Your task to perform on an android device: What's the weather like in Singapore? Image 0: 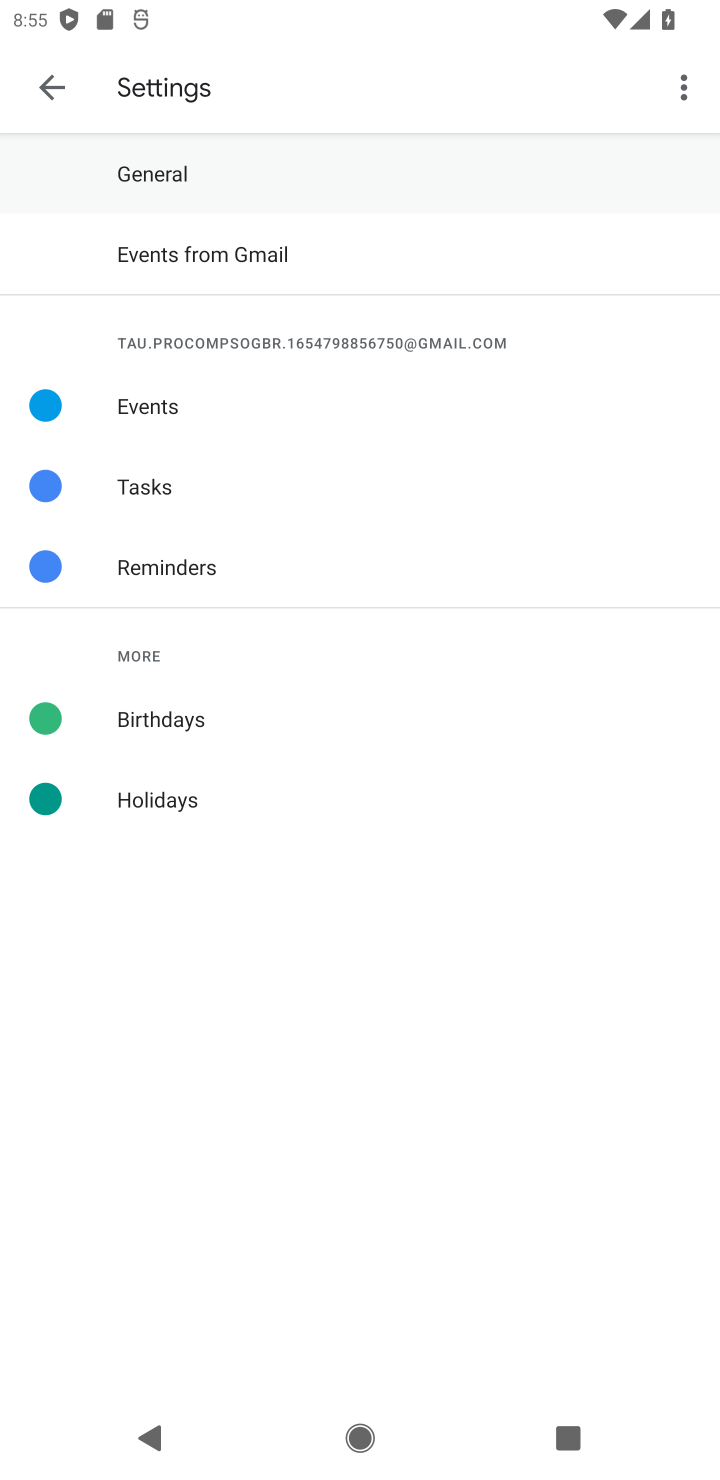
Step 0: press home button
Your task to perform on an android device: What's the weather like in Singapore? Image 1: 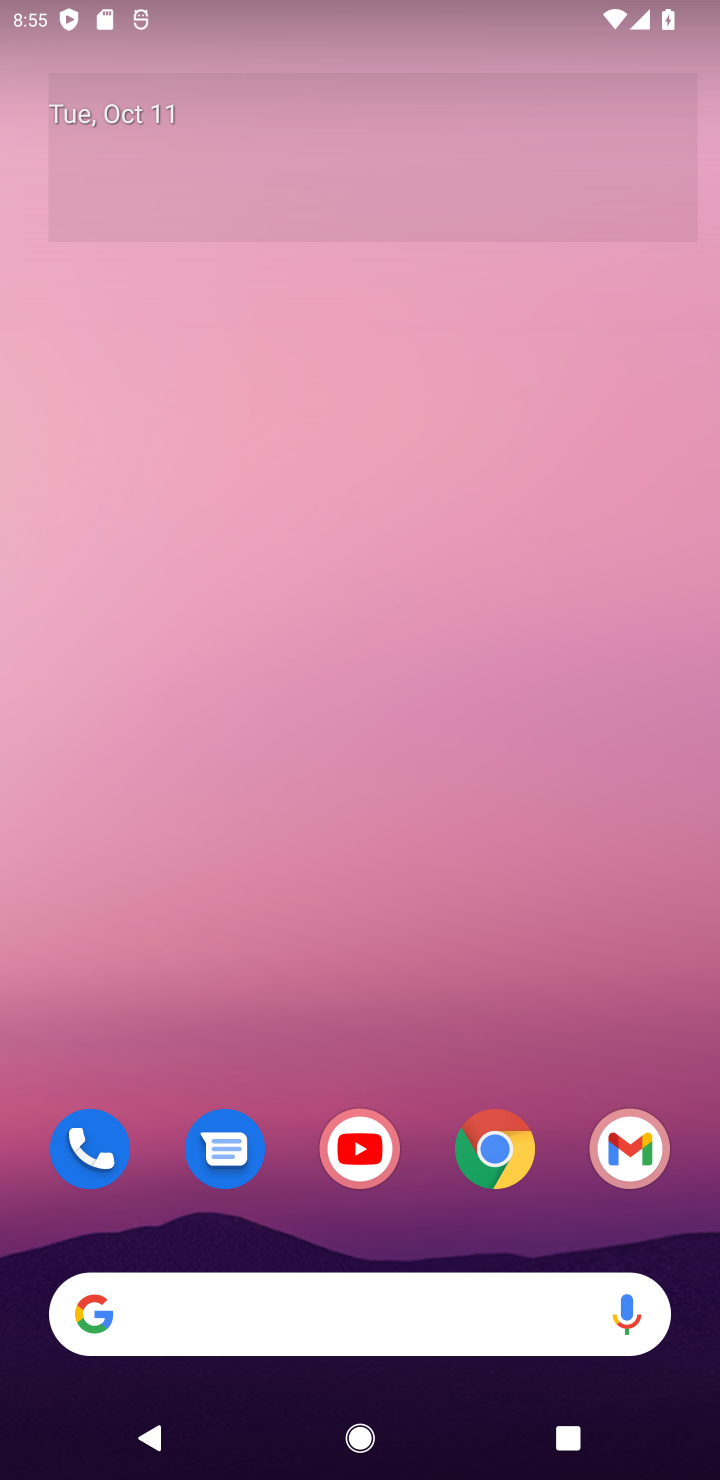
Step 1: drag from (388, 1113) to (514, 125)
Your task to perform on an android device: What's the weather like in Singapore? Image 2: 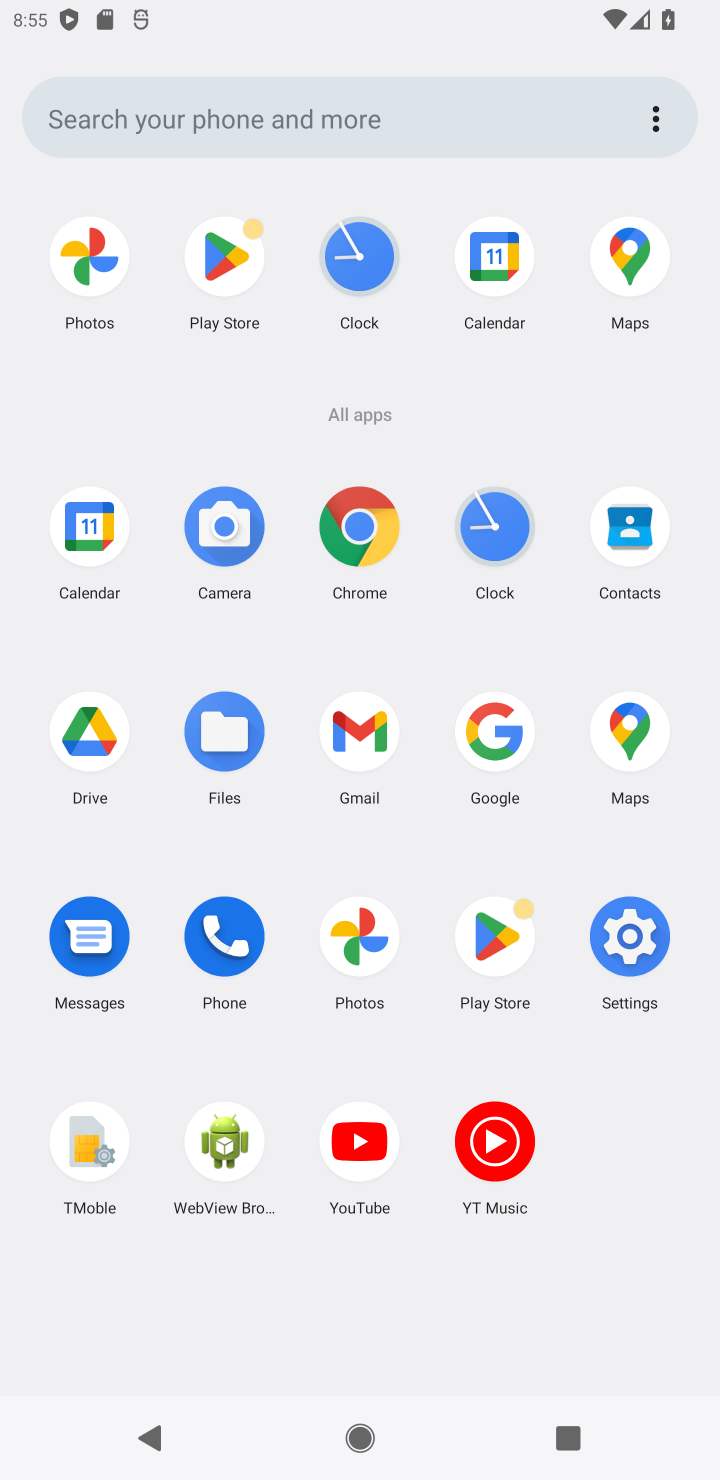
Step 2: click (380, 525)
Your task to perform on an android device: What's the weather like in Singapore? Image 3: 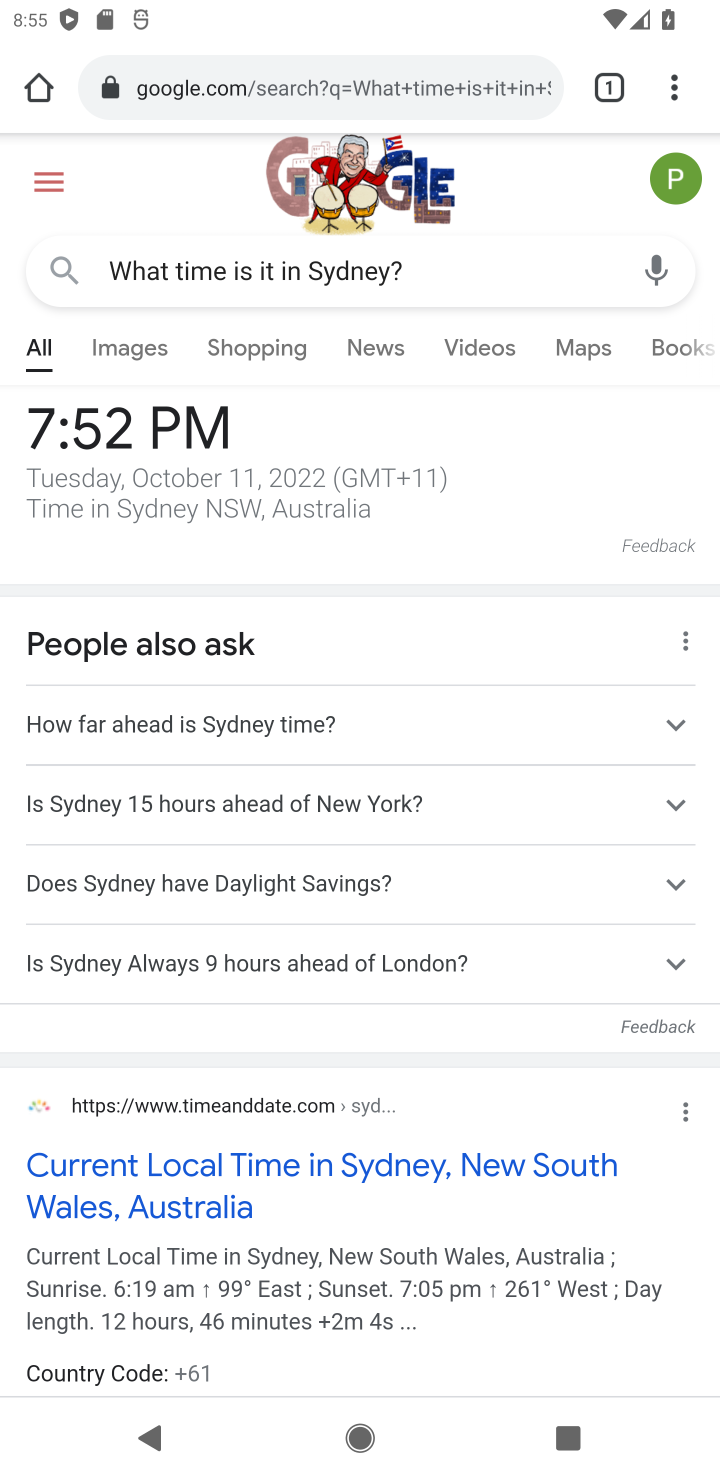
Step 3: click (421, 92)
Your task to perform on an android device: What's the weather like in Singapore? Image 4: 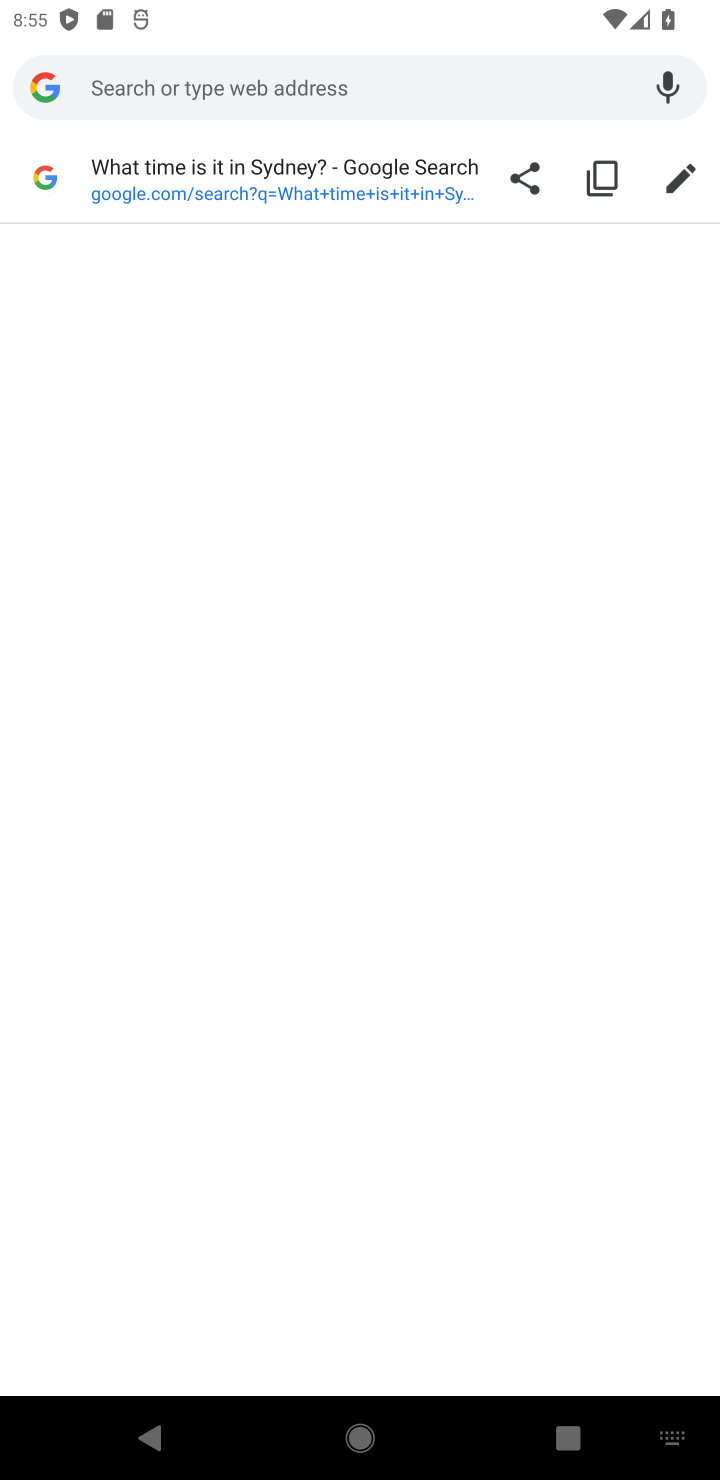
Step 4: type "What's the weather like in Singapore?"
Your task to perform on an android device: What's the weather like in Singapore? Image 5: 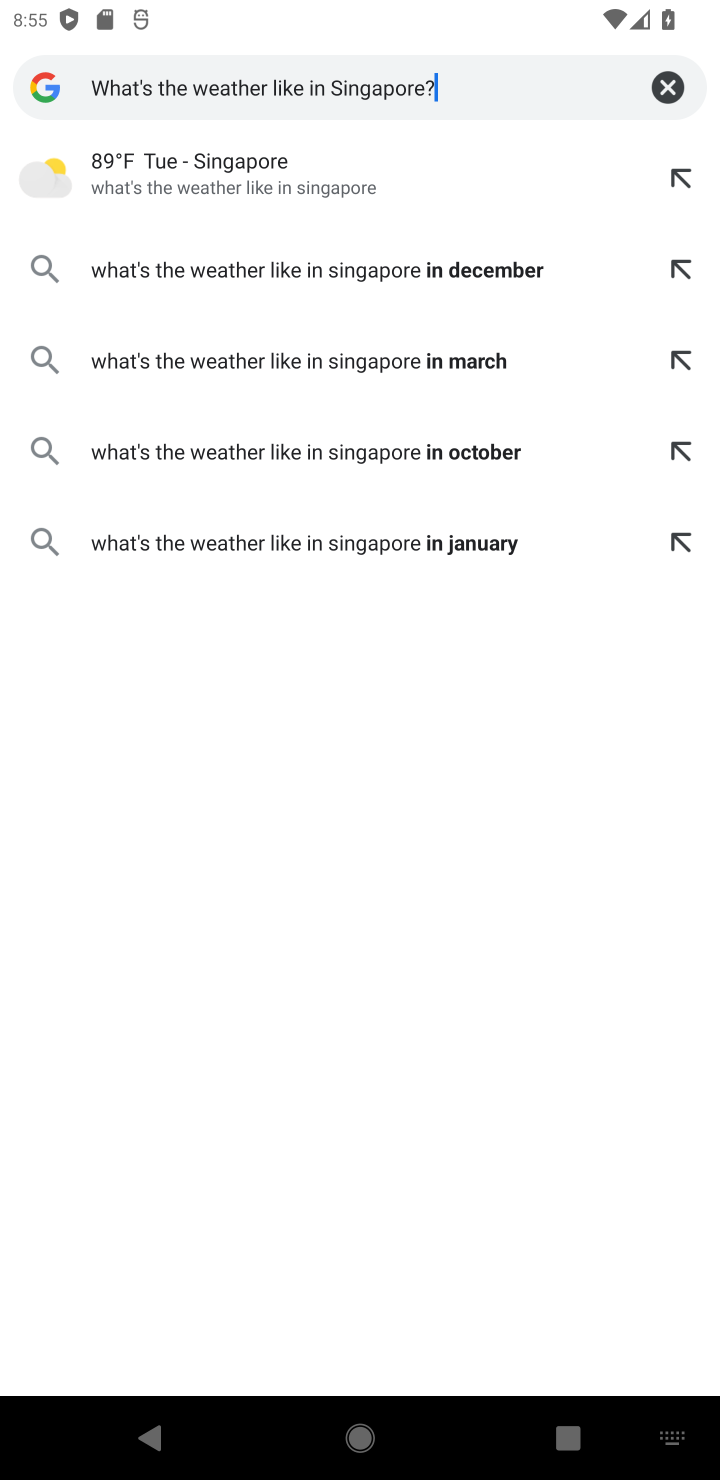
Step 5: press enter
Your task to perform on an android device: What's the weather like in Singapore? Image 6: 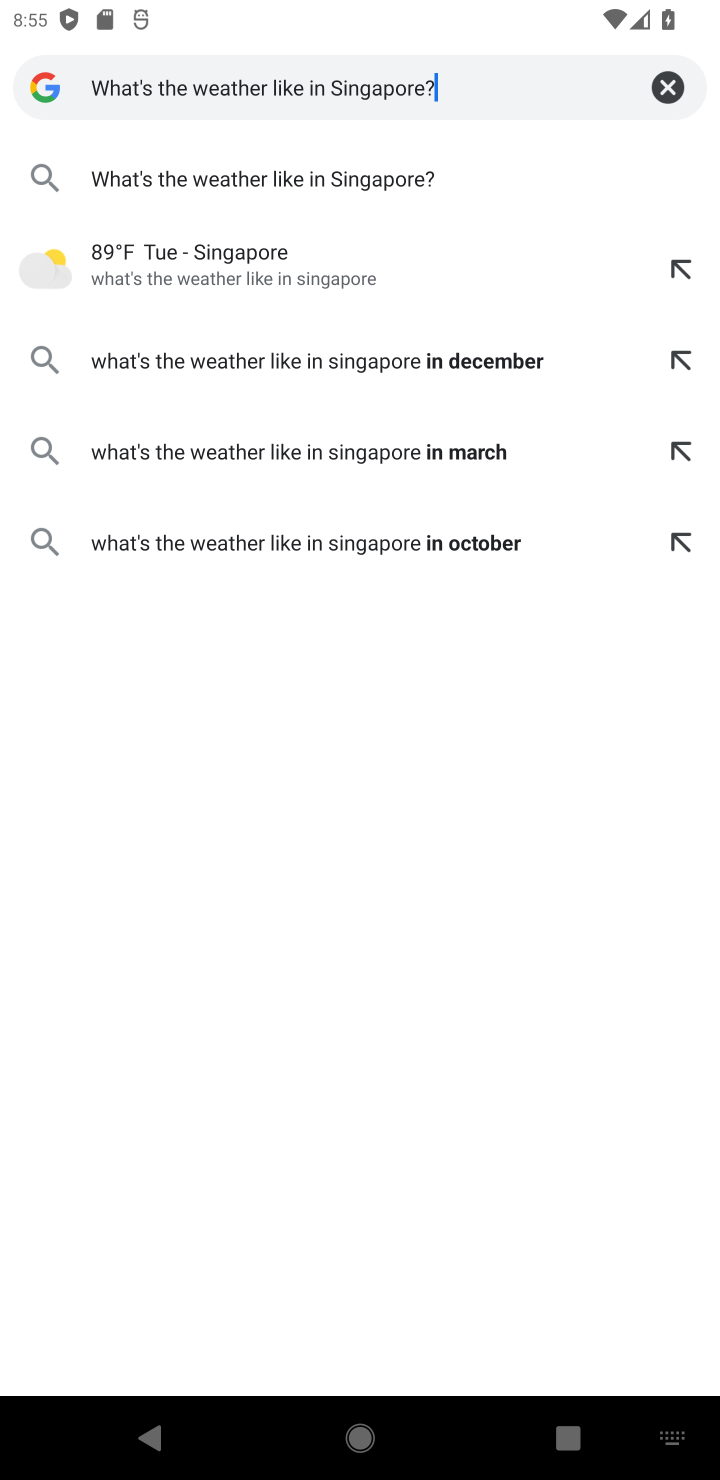
Step 6: click (494, 79)
Your task to perform on an android device: What's the weather like in Singapore? Image 7: 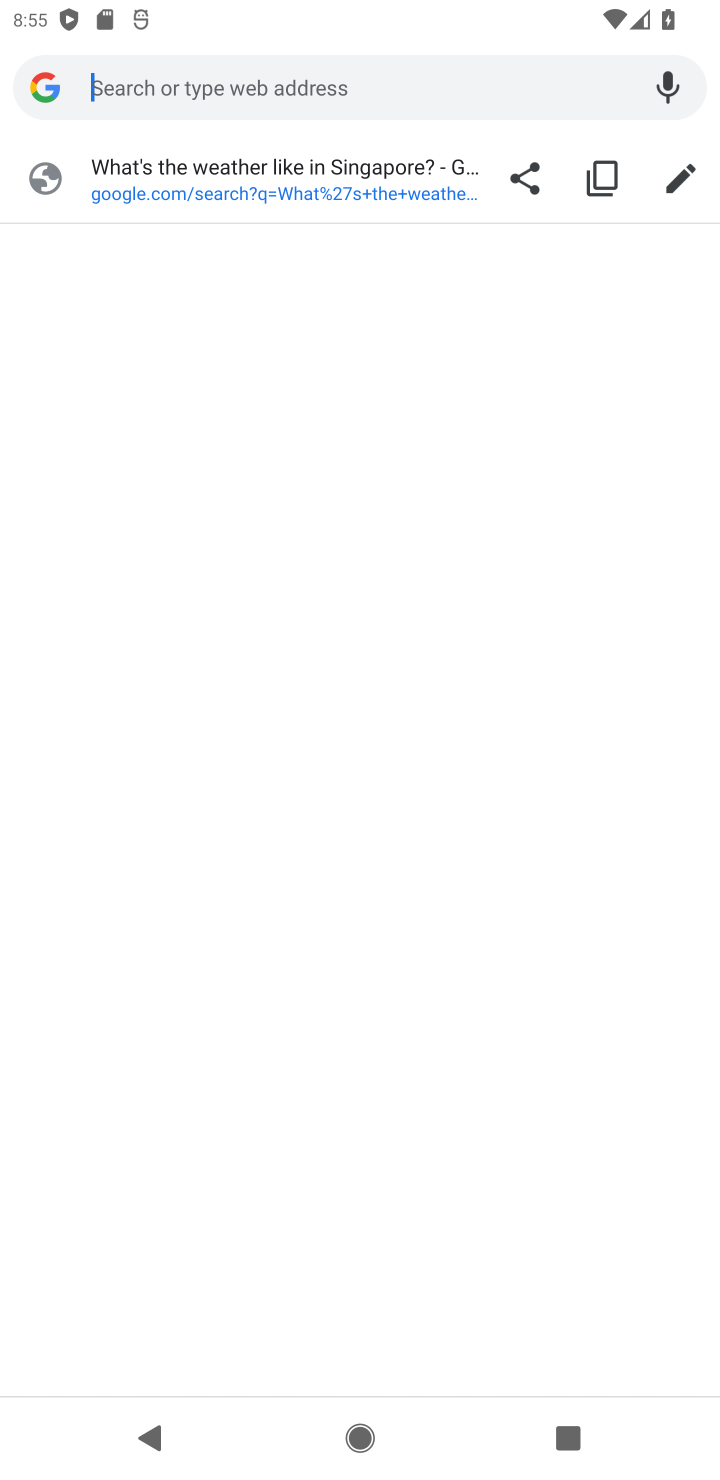
Step 7: type "What's the weather like in Singapore?"
Your task to perform on an android device: What's the weather like in Singapore? Image 8: 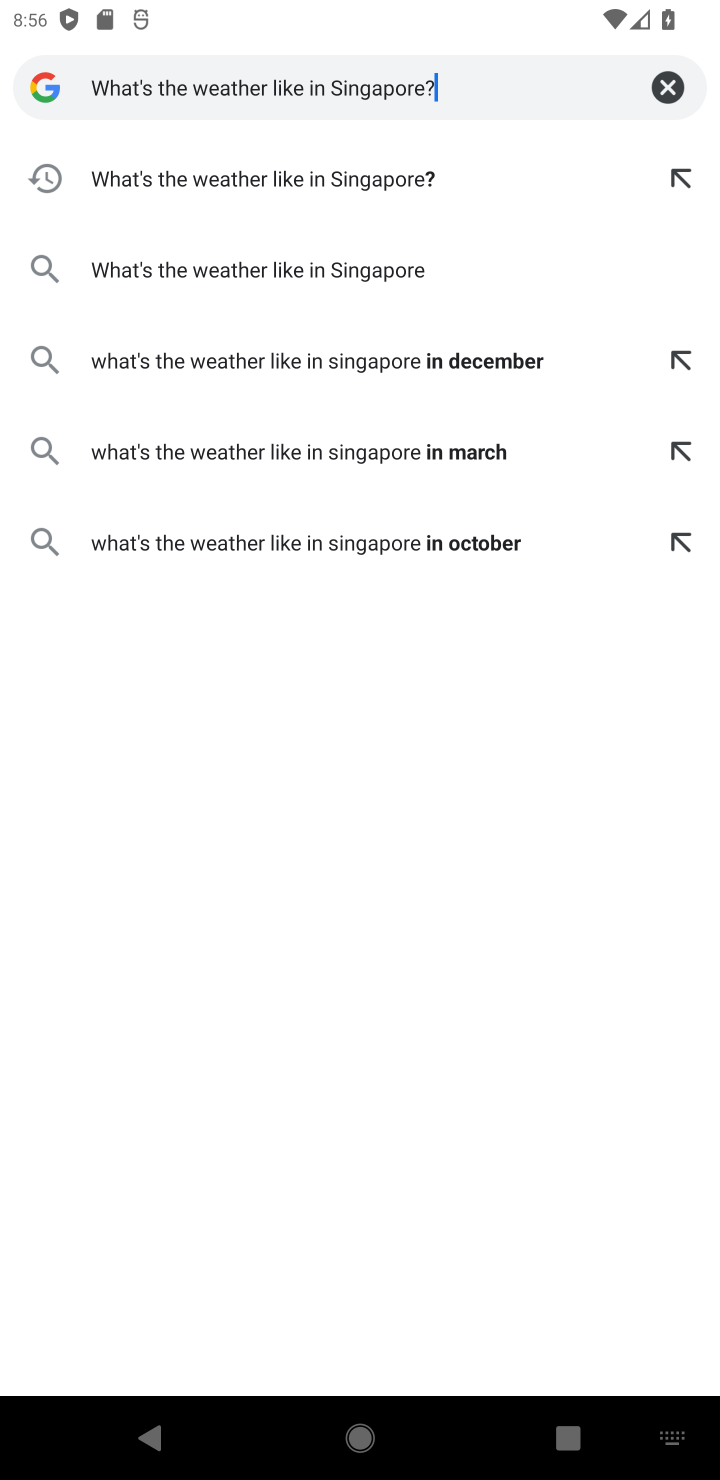
Step 8: press enter
Your task to perform on an android device: What's the weather like in Singapore? Image 9: 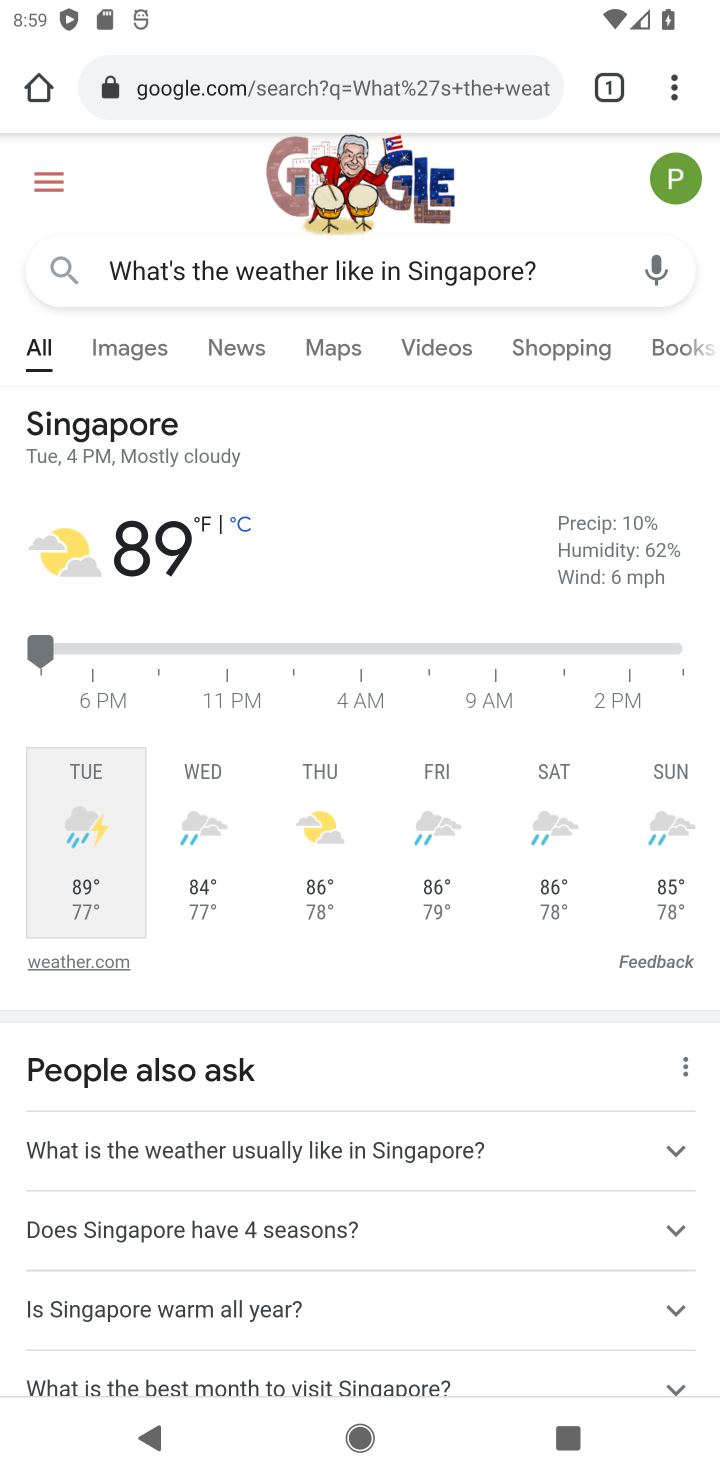
Step 9: task complete